Your task to perform on an android device: Check the news Image 0: 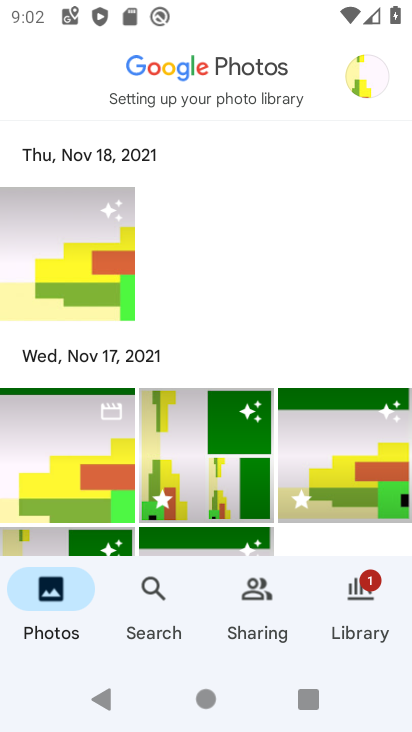
Step 0: press home button
Your task to perform on an android device: Check the news Image 1: 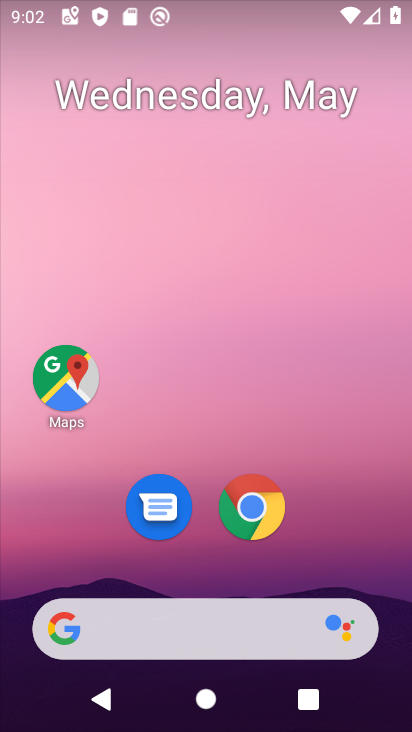
Step 1: click (270, 514)
Your task to perform on an android device: Check the news Image 2: 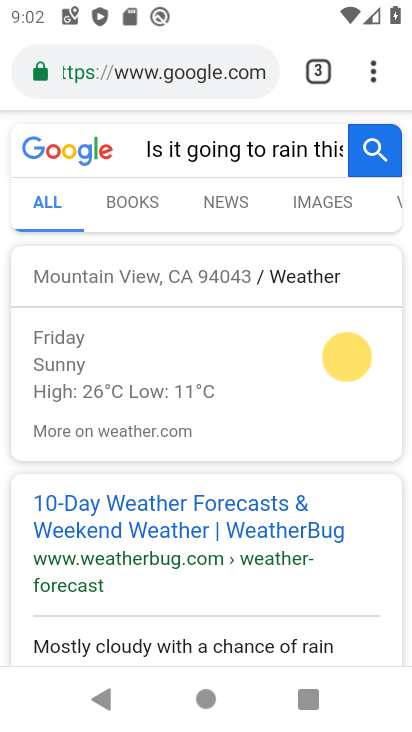
Step 2: click (243, 64)
Your task to perform on an android device: Check the news Image 3: 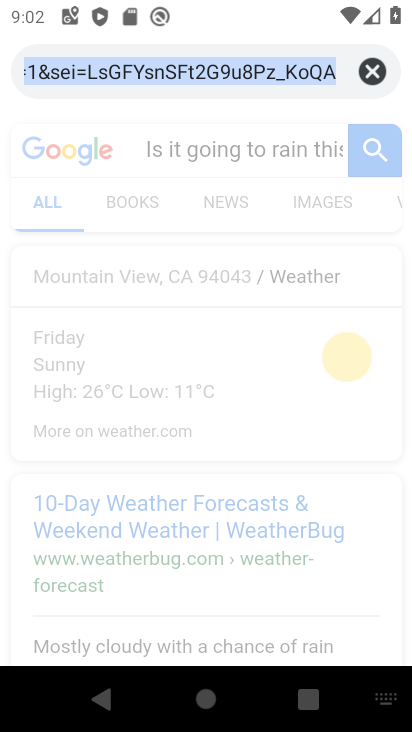
Step 3: type "news"
Your task to perform on an android device: Check the news Image 4: 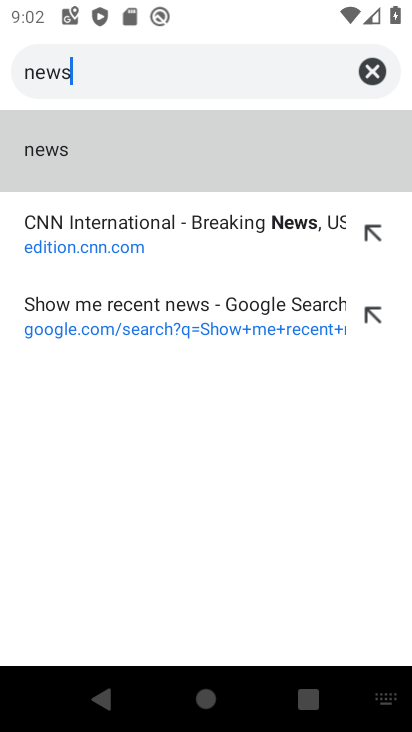
Step 4: click (56, 165)
Your task to perform on an android device: Check the news Image 5: 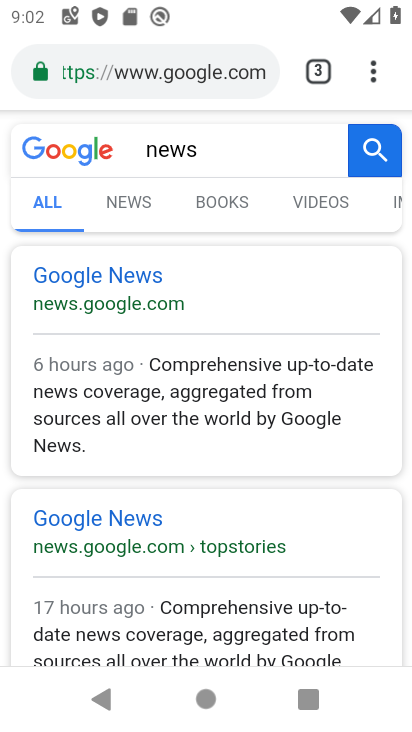
Step 5: click (86, 286)
Your task to perform on an android device: Check the news Image 6: 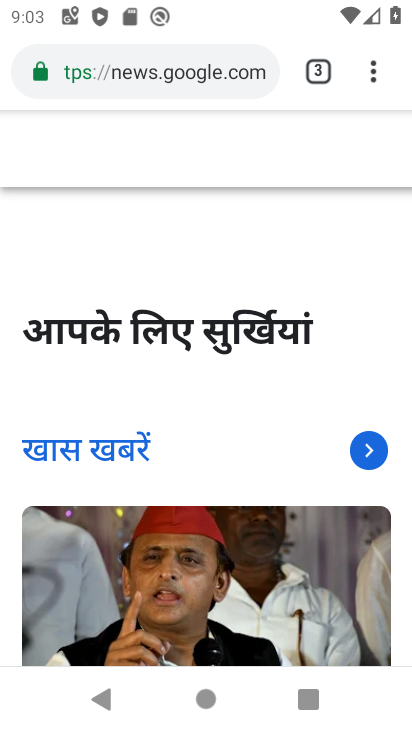
Step 6: task complete